Your task to perform on an android device: Open the map Image 0: 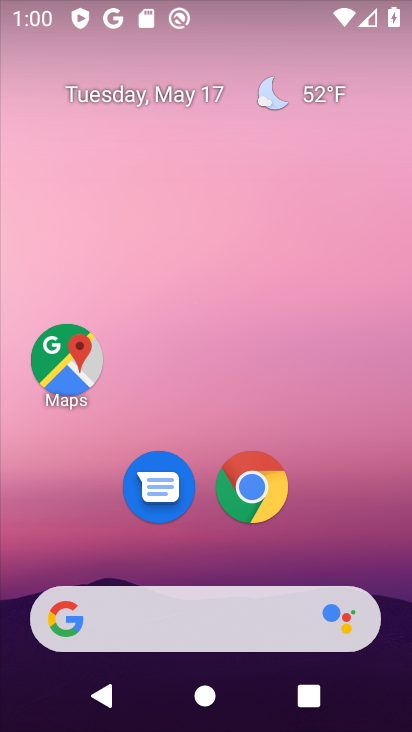
Step 0: press home button
Your task to perform on an android device: Open the map Image 1: 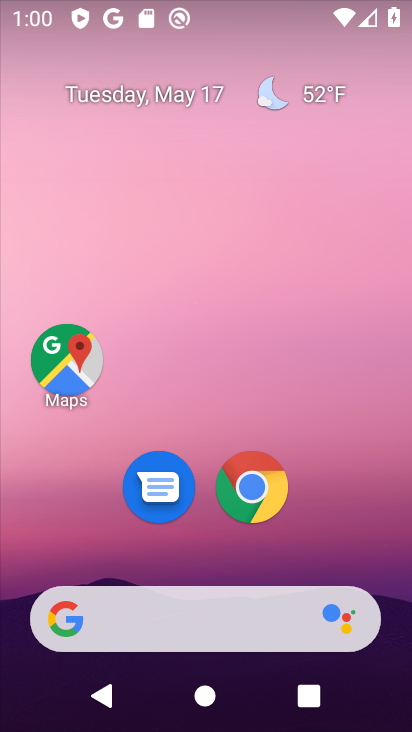
Step 1: press home button
Your task to perform on an android device: Open the map Image 2: 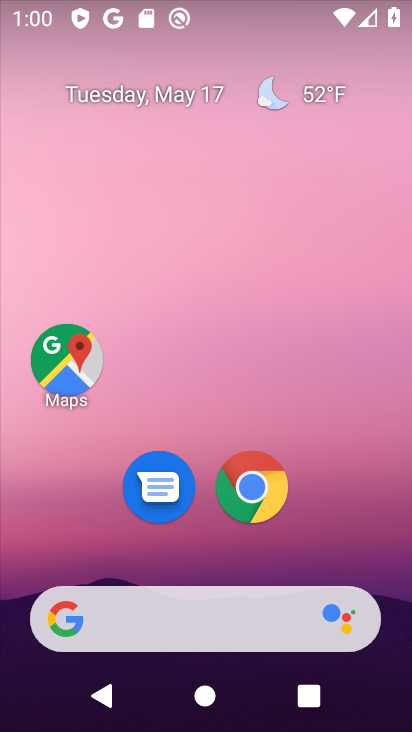
Step 2: click (245, 485)
Your task to perform on an android device: Open the map Image 3: 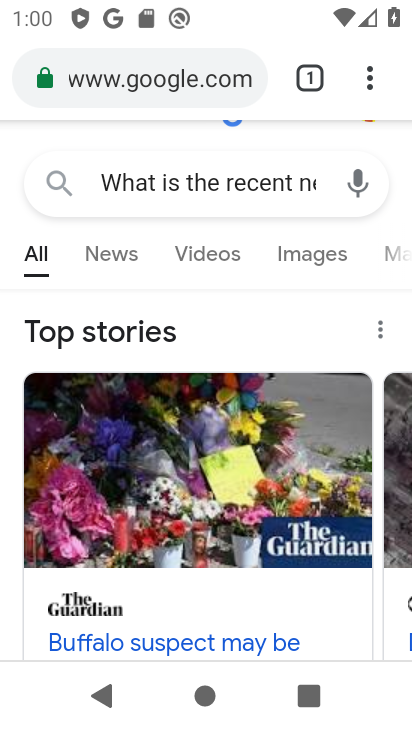
Step 3: press home button
Your task to perform on an android device: Open the map Image 4: 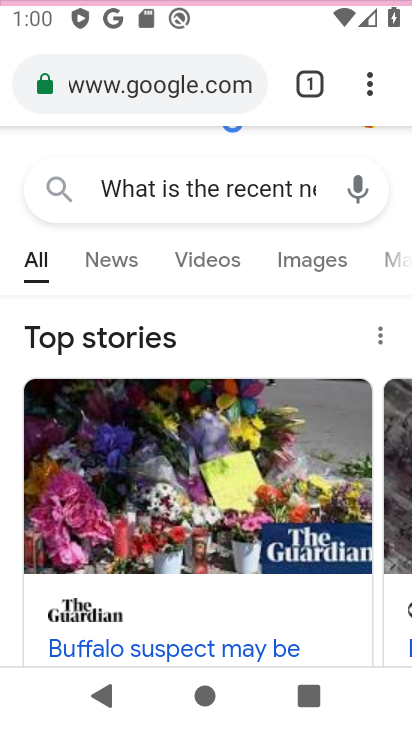
Step 4: press home button
Your task to perform on an android device: Open the map Image 5: 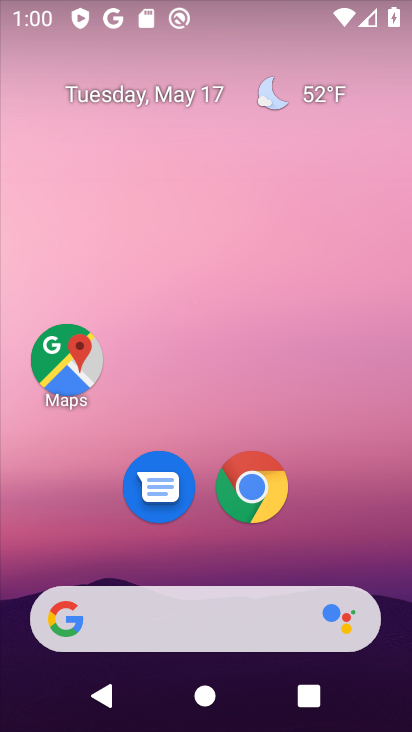
Step 5: click (51, 317)
Your task to perform on an android device: Open the map Image 6: 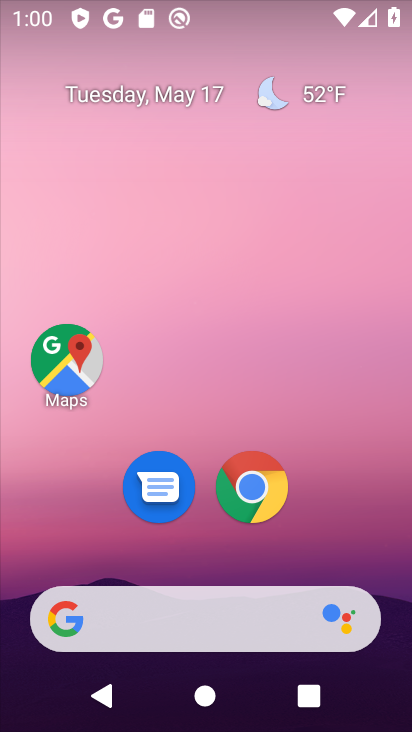
Step 6: click (80, 362)
Your task to perform on an android device: Open the map Image 7: 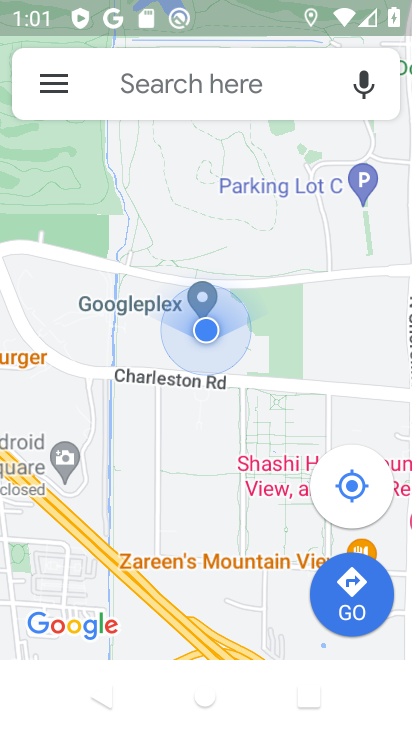
Step 7: task complete